Your task to perform on an android device: read, delete, or share a saved page in the chrome app Image 0: 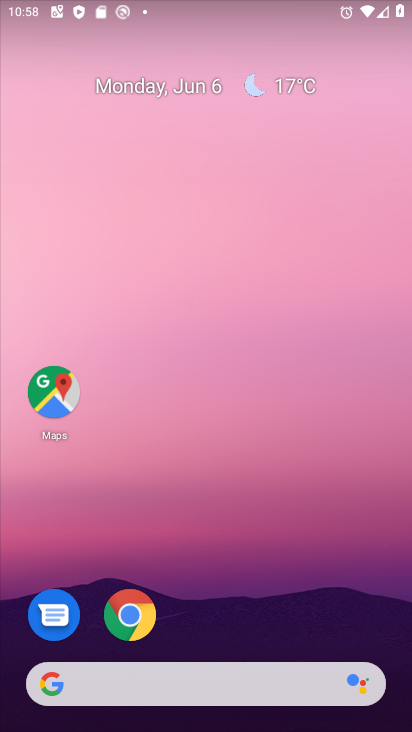
Step 0: click (133, 612)
Your task to perform on an android device: read, delete, or share a saved page in the chrome app Image 1: 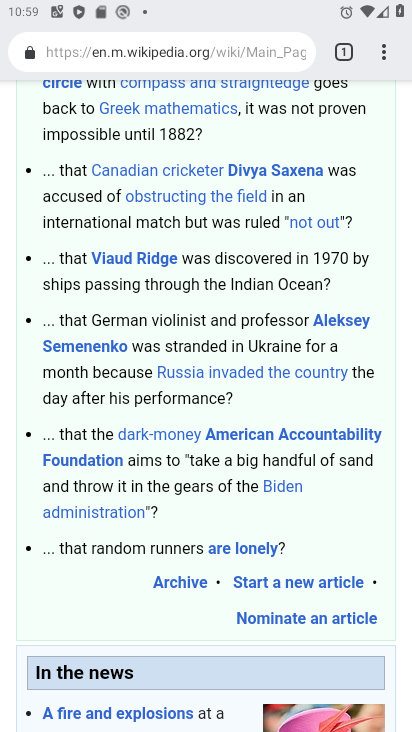
Step 1: click (382, 48)
Your task to perform on an android device: read, delete, or share a saved page in the chrome app Image 2: 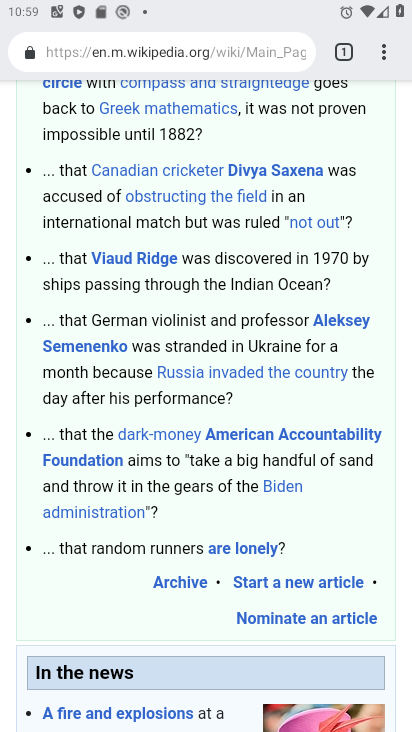
Step 2: click (383, 45)
Your task to perform on an android device: read, delete, or share a saved page in the chrome app Image 3: 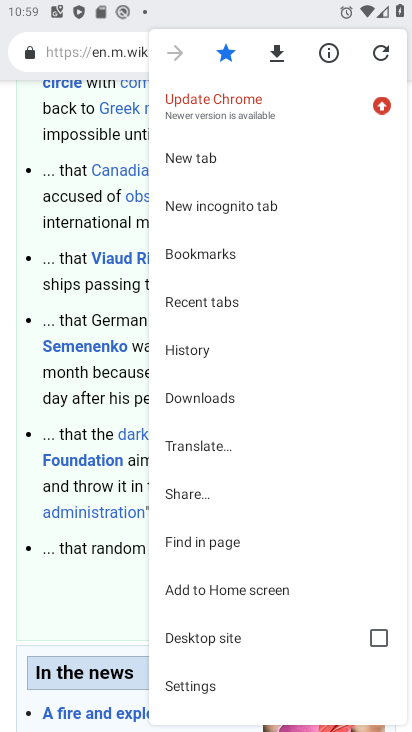
Step 3: click (241, 394)
Your task to perform on an android device: read, delete, or share a saved page in the chrome app Image 4: 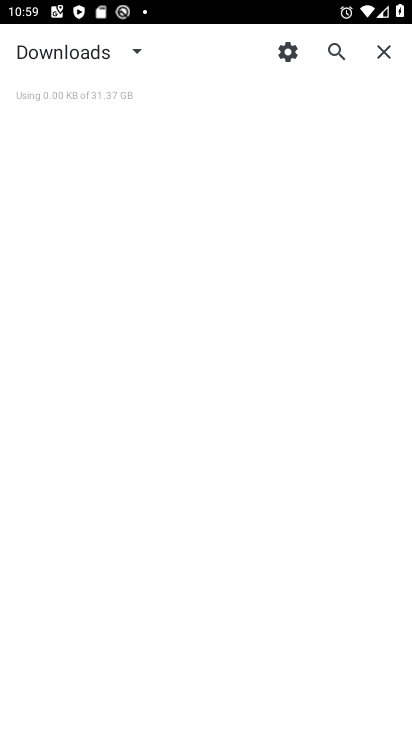
Step 4: task complete